Your task to perform on an android device: visit the assistant section in the google photos Image 0: 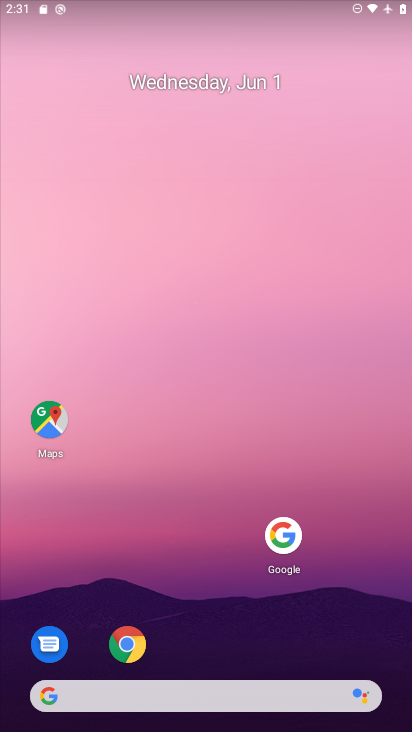
Step 0: press home button
Your task to perform on an android device: visit the assistant section in the google photos Image 1: 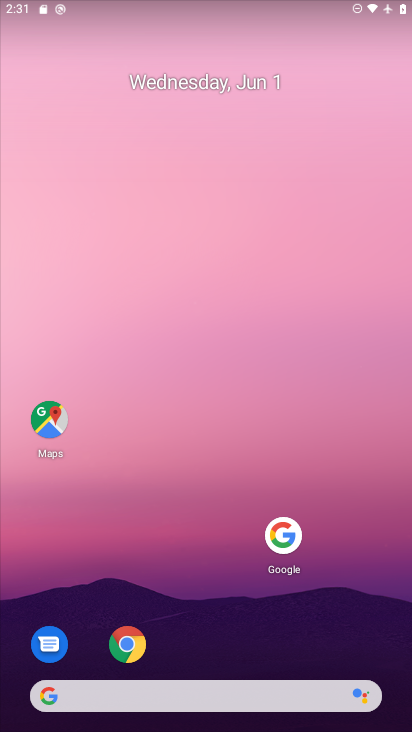
Step 1: drag from (210, 701) to (344, 203)
Your task to perform on an android device: visit the assistant section in the google photos Image 2: 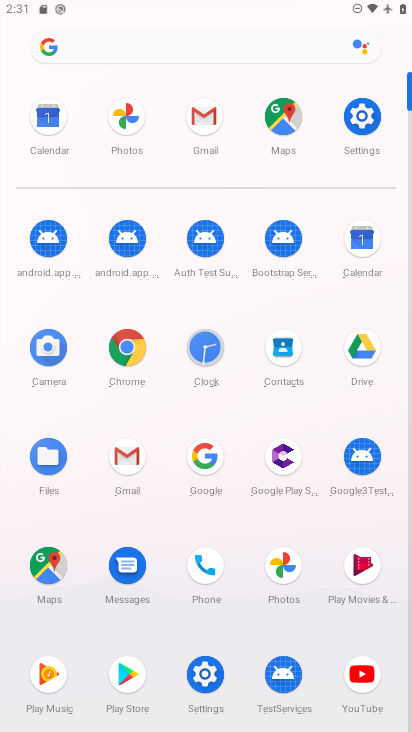
Step 2: click (284, 563)
Your task to perform on an android device: visit the assistant section in the google photos Image 3: 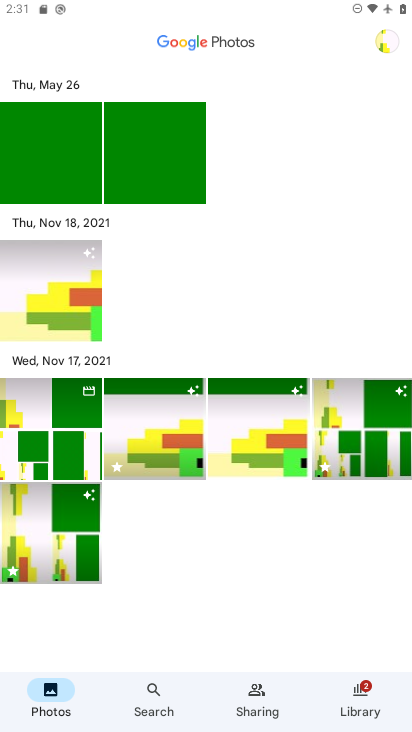
Step 3: click (165, 709)
Your task to perform on an android device: visit the assistant section in the google photos Image 4: 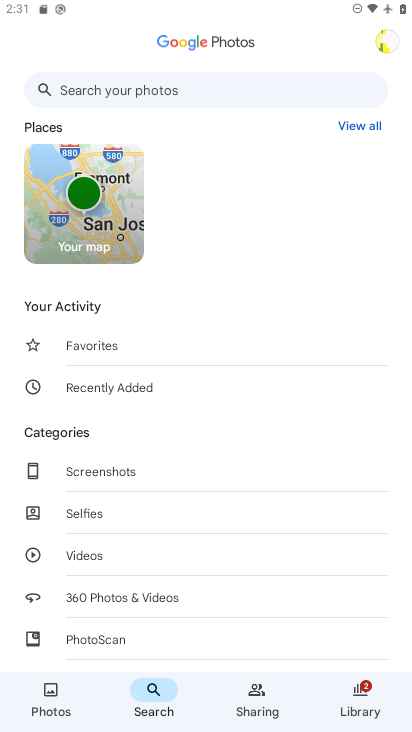
Step 4: task complete